Your task to perform on an android device: toggle improve location accuracy Image 0: 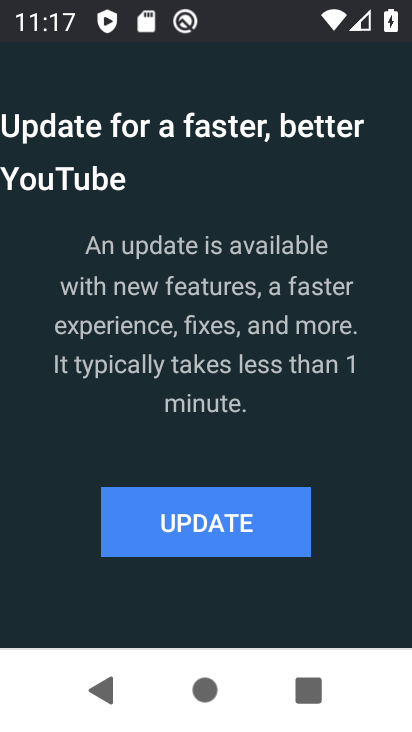
Step 0: press home button
Your task to perform on an android device: toggle improve location accuracy Image 1: 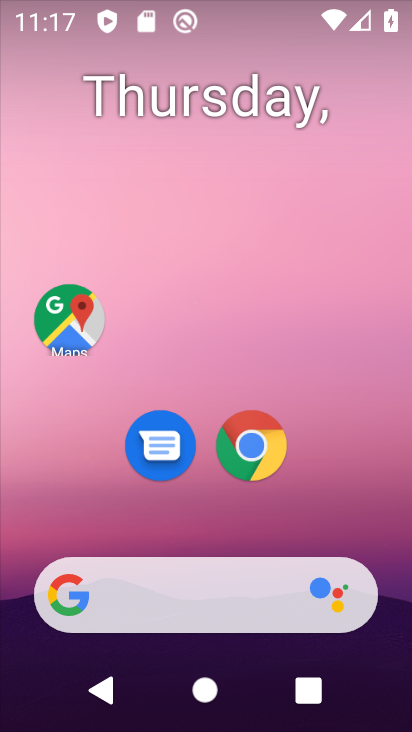
Step 1: drag from (222, 524) to (226, 69)
Your task to perform on an android device: toggle improve location accuracy Image 2: 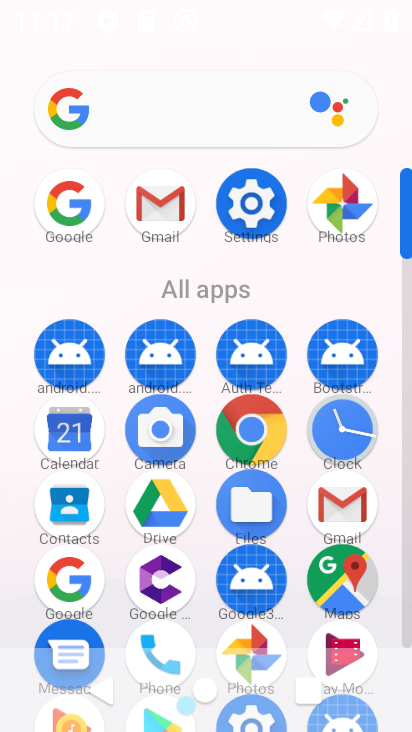
Step 2: click (263, 188)
Your task to perform on an android device: toggle improve location accuracy Image 3: 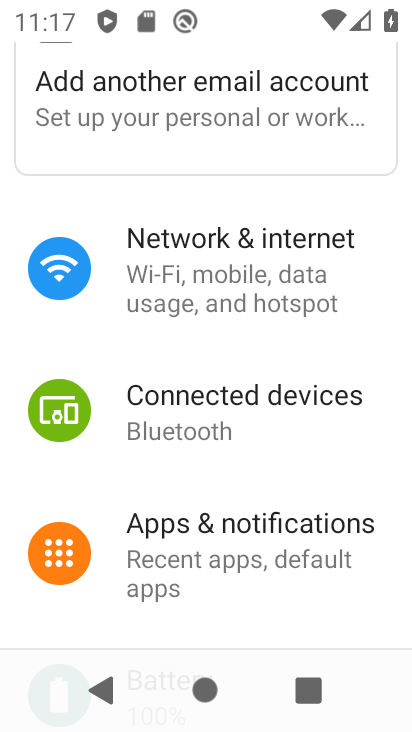
Step 3: drag from (238, 580) to (249, 268)
Your task to perform on an android device: toggle improve location accuracy Image 4: 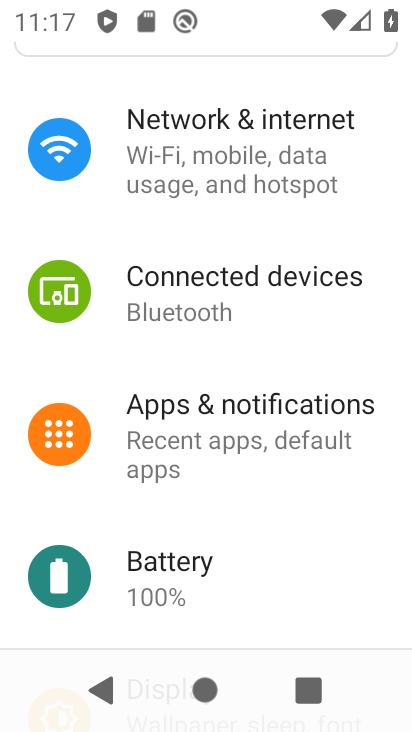
Step 4: drag from (248, 377) to (249, 334)
Your task to perform on an android device: toggle improve location accuracy Image 5: 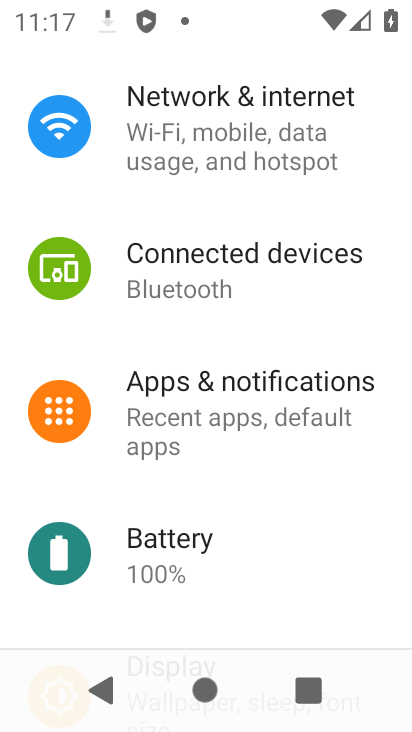
Step 5: drag from (254, 412) to (256, 327)
Your task to perform on an android device: toggle improve location accuracy Image 6: 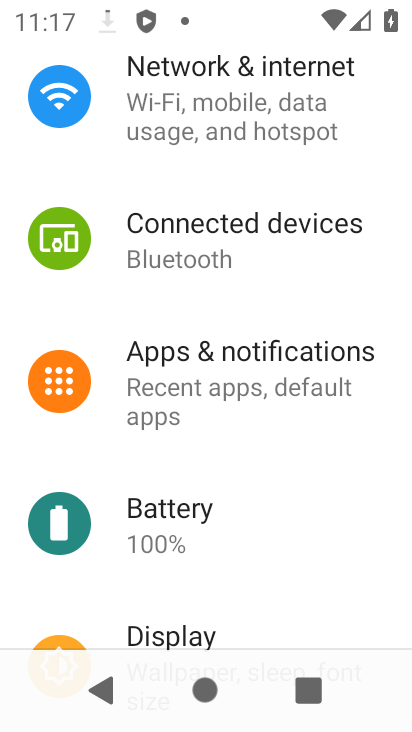
Step 6: drag from (263, 571) to (264, 299)
Your task to perform on an android device: toggle improve location accuracy Image 7: 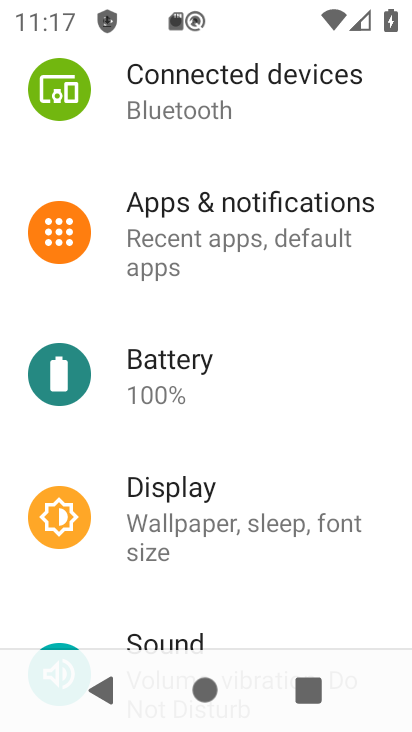
Step 7: drag from (262, 565) to (267, 318)
Your task to perform on an android device: toggle improve location accuracy Image 8: 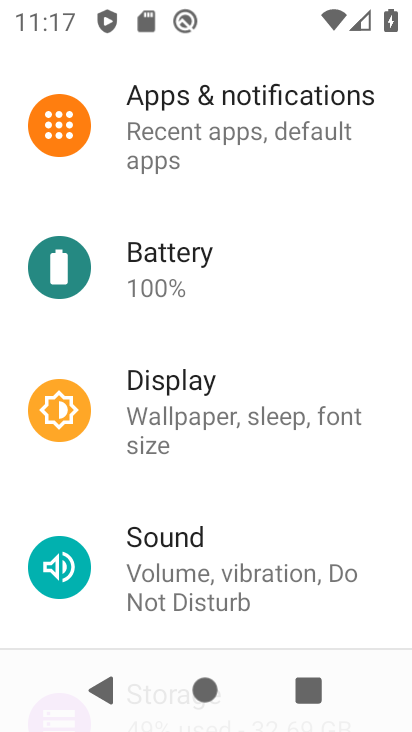
Step 8: drag from (250, 482) to (242, 195)
Your task to perform on an android device: toggle improve location accuracy Image 9: 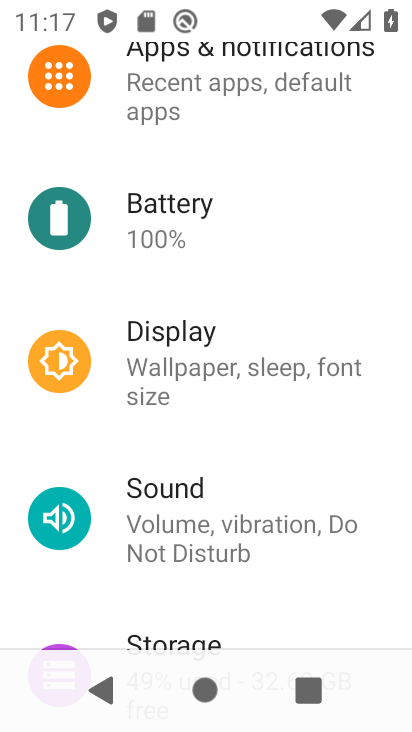
Step 9: drag from (228, 381) to (229, 290)
Your task to perform on an android device: toggle improve location accuracy Image 10: 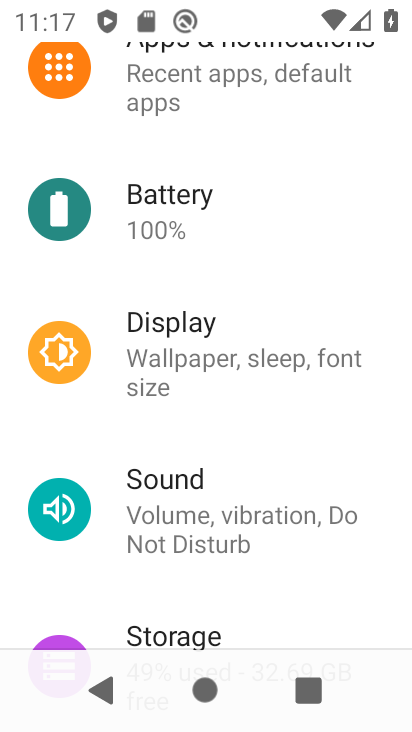
Step 10: drag from (241, 383) to (247, 280)
Your task to perform on an android device: toggle improve location accuracy Image 11: 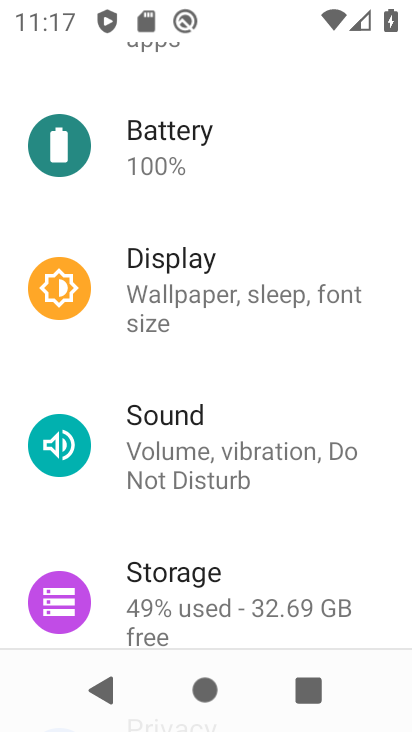
Step 11: drag from (246, 517) to (261, 221)
Your task to perform on an android device: toggle improve location accuracy Image 12: 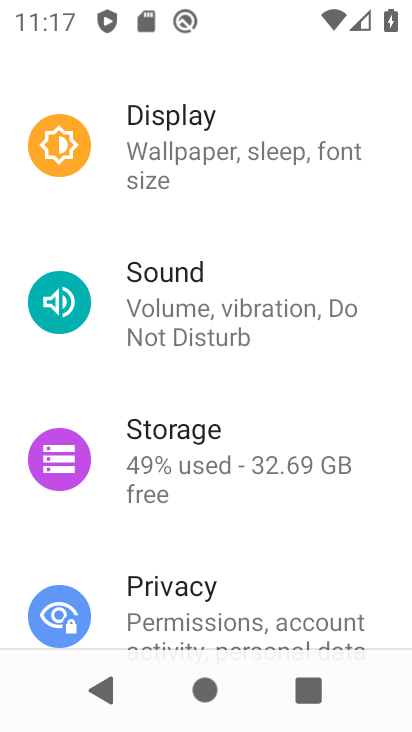
Step 12: drag from (250, 490) to (262, 195)
Your task to perform on an android device: toggle improve location accuracy Image 13: 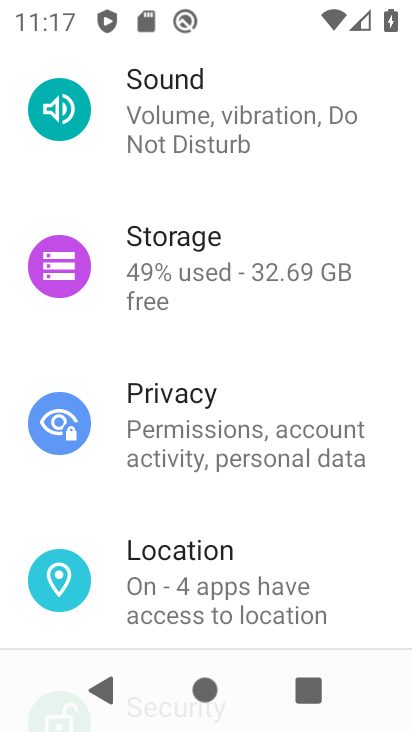
Step 13: click (228, 579)
Your task to perform on an android device: toggle improve location accuracy Image 14: 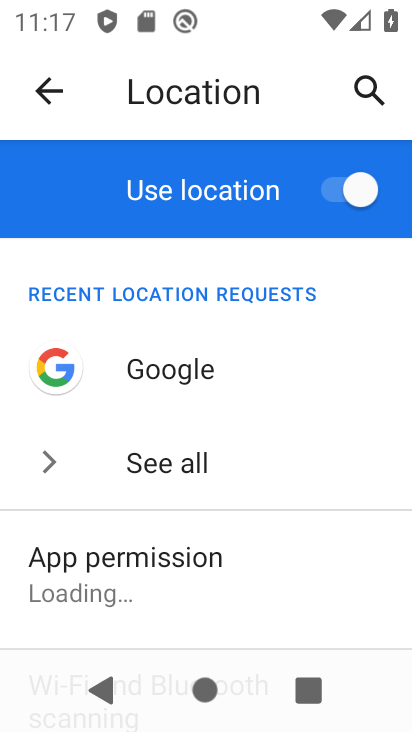
Step 14: drag from (233, 597) to (237, 266)
Your task to perform on an android device: toggle improve location accuracy Image 15: 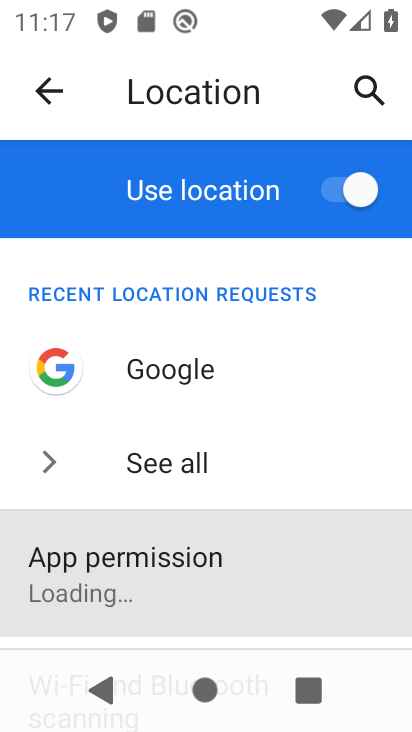
Step 15: drag from (249, 587) to (257, 388)
Your task to perform on an android device: toggle improve location accuracy Image 16: 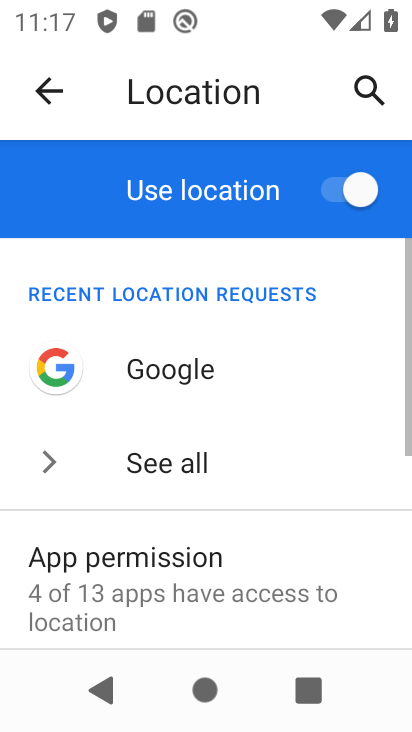
Step 16: drag from (237, 480) to (245, 231)
Your task to perform on an android device: toggle improve location accuracy Image 17: 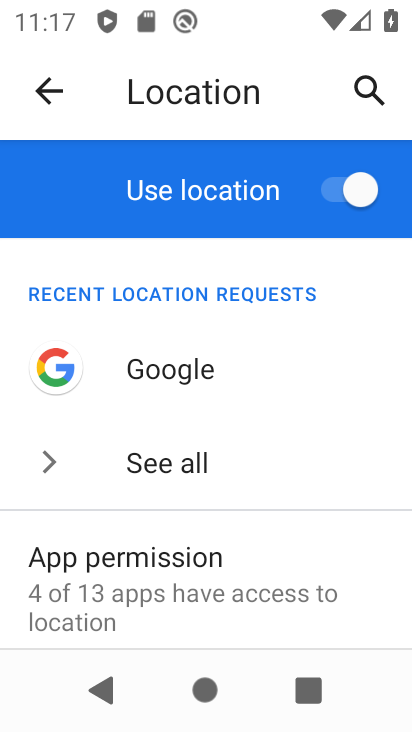
Step 17: drag from (211, 615) to (209, 81)
Your task to perform on an android device: toggle improve location accuracy Image 18: 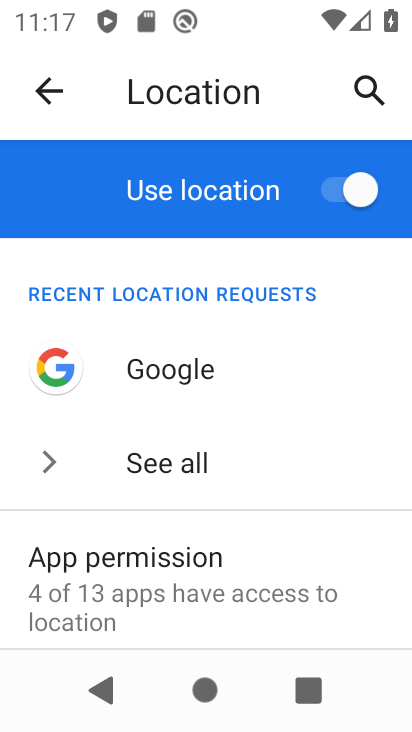
Step 18: drag from (199, 568) to (199, 95)
Your task to perform on an android device: toggle improve location accuracy Image 19: 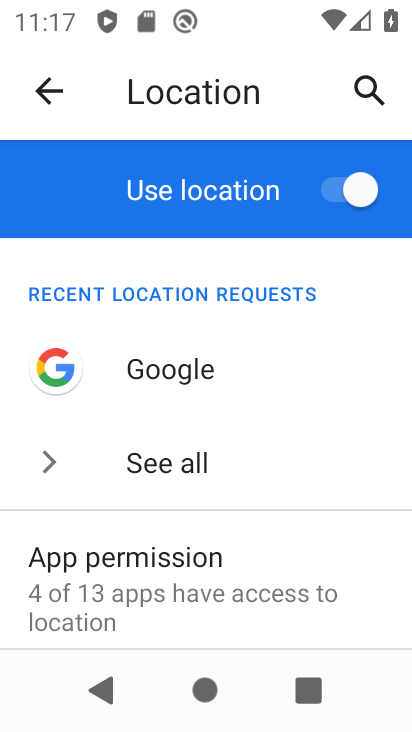
Step 19: drag from (160, 572) to (192, 130)
Your task to perform on an android device: toggle improve location accuracy Image 20: 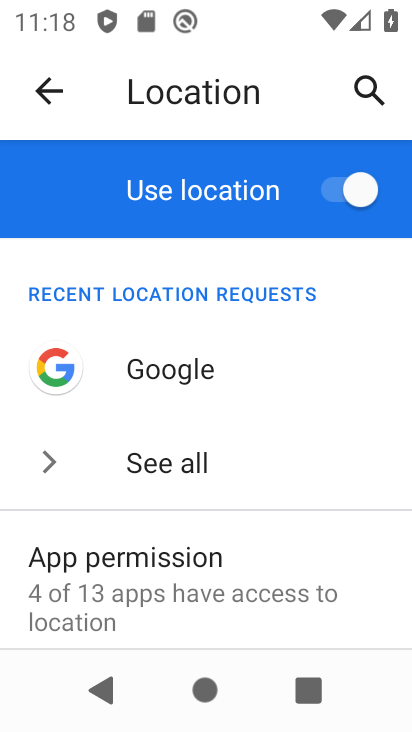
Step 20: drag from (224, 507) to (226, 139)
Your task to perform on an android device: toggle improve location accuracy Image 21: 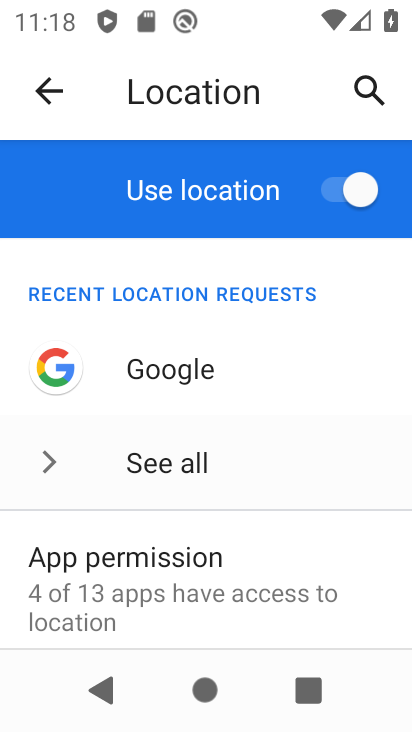
Step 21: drag from (248, 555) to (249, 272)
Your task to perform on an android device: toggle improve location accuracy Image 22: 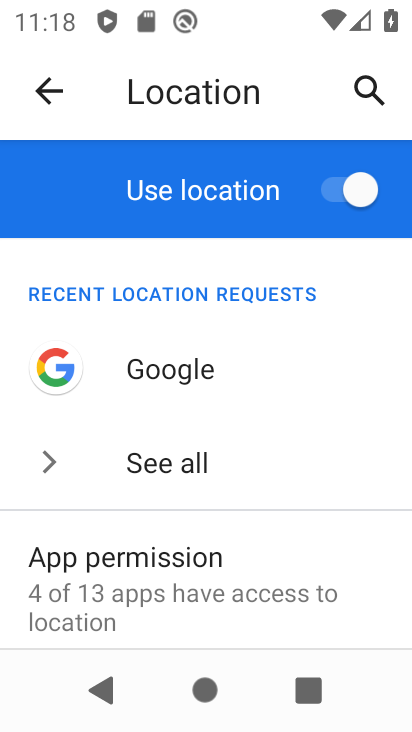
Step 22: drag from (237, 627) to (226, 318)
Your task to perform on an android device: toggle improve location accuracy Image 23: 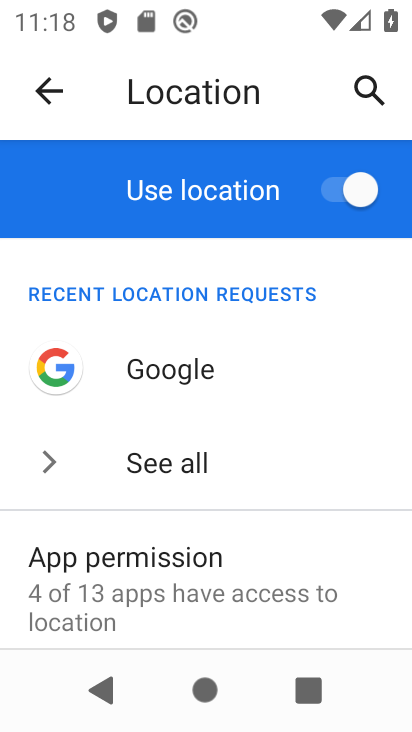
Step 23: drag from (256, 548) to (256, 235)
Your task to perform on an android device: toggle improve location accuracy Image 24: 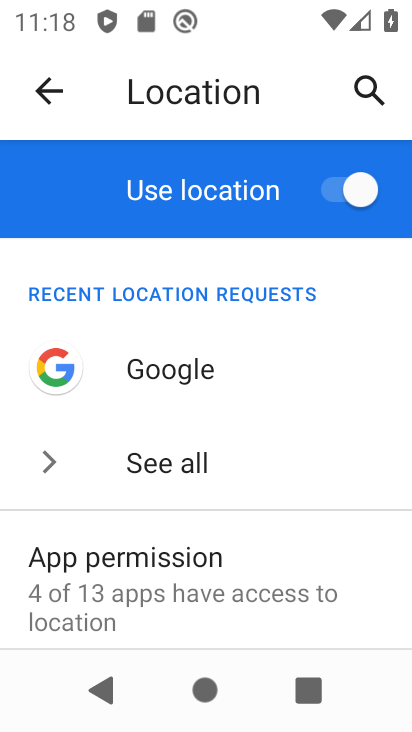
Step 24: drag from (265, 541) to (265, 303)
Your task to perform on an android device: toggle improve location accuracy Image 25: 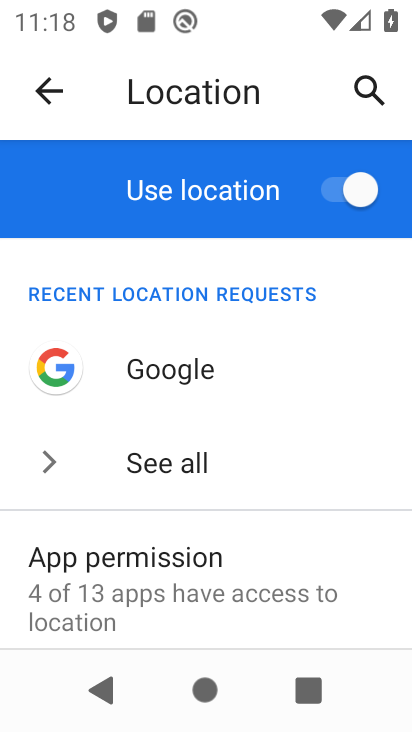
Step 25: drag from (255, 572) to (258, 337)
Your task to perform on an android device: toggle improve location accuracy Image 26: 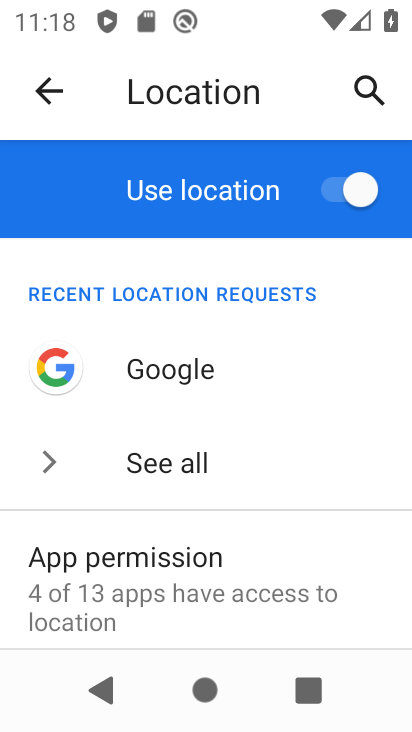
Step 26: drag from (172, 506) to (174, 245)
Your task to perform on an android device: toggle improve location accuracy Image 27: 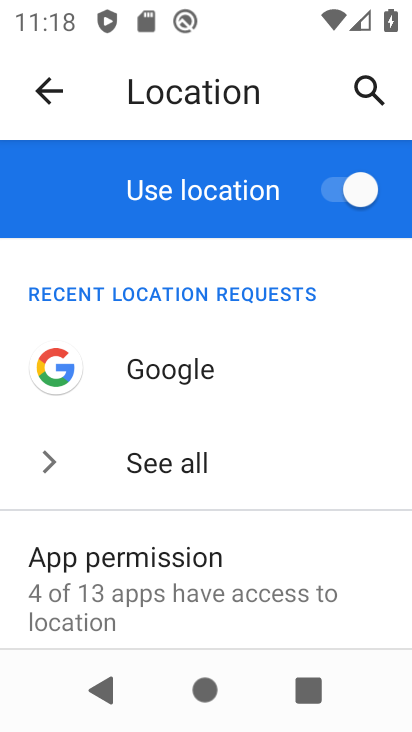
Step 27: drag from (215, 545) to (219, 258)
Your task to perform on an android device: toggle improve location accuracy Image 28: 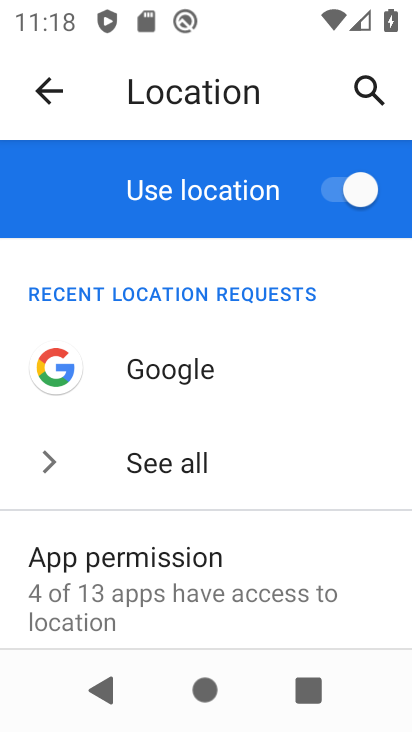
Step 28: drag from (212, 597) to (220, 343)
Your task to perform on an android device: toggle improve location accuracy Image 29: 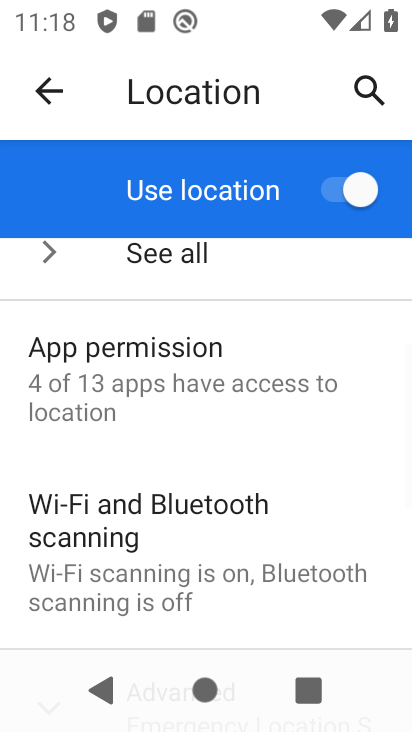
Step 29: drag from (226, 577) to (231, 320)
Your task to perform on an android device: toggle improve location accuracy Image 30: 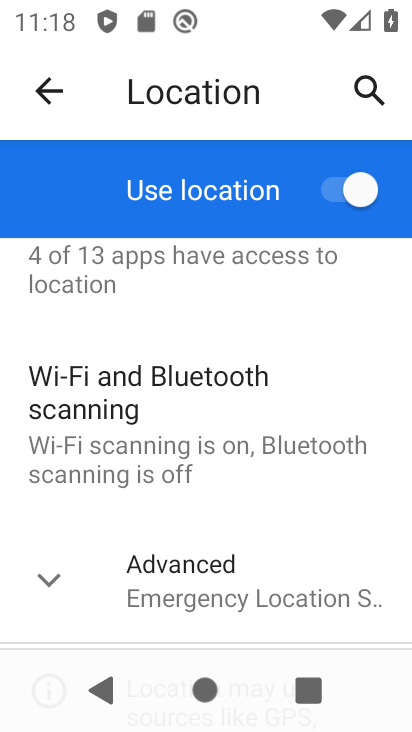
Step 30: click (255, 584)
Your task to perform on an android device: toggle improve location accuracy Image 31: 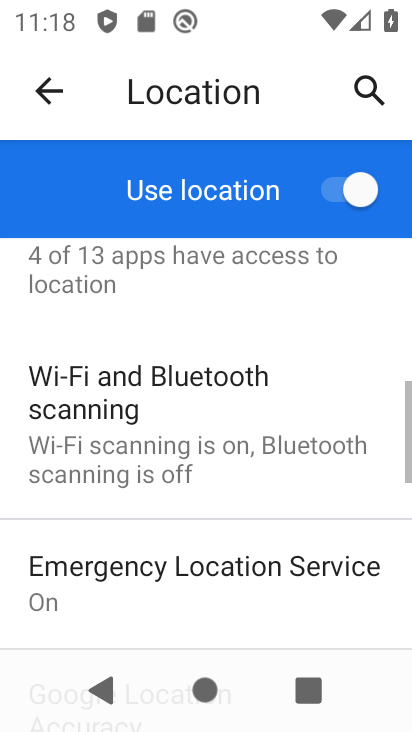
Step 31: drag from (267, 411) to (274, 312)
Your task to perform on an android device: toggle improve location accuracy Image 32: 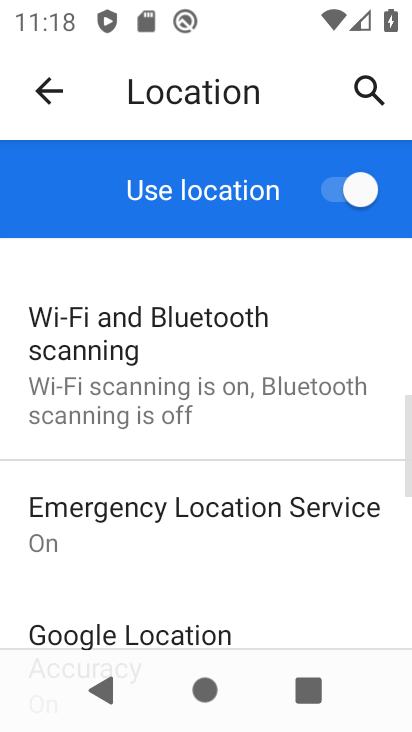
Step 32: drag from (274, 543) to (289, 338)
Your task to perform on an android device: toggle improve location accuracy Image 33: 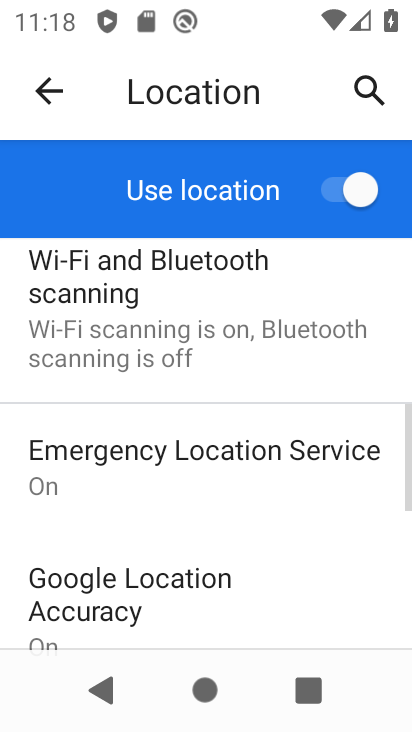
Step 33: click (204, 587)
Your task to perform on an android device: toggle improve location accuracy Image 34: 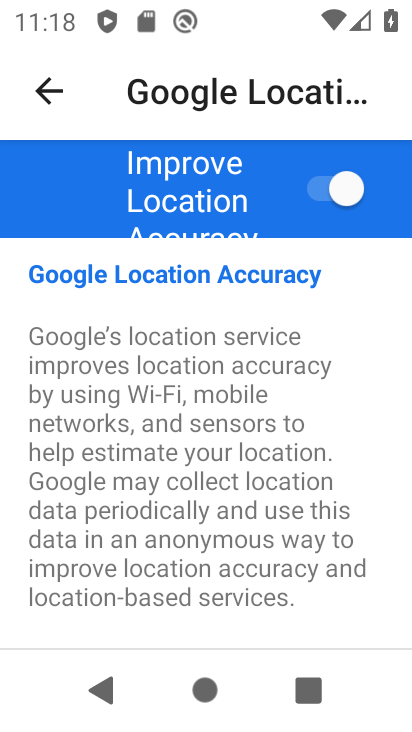
Step 34: click (309, 189)
Your task to perform on an android device: toggle improve location accuracy Image 35: 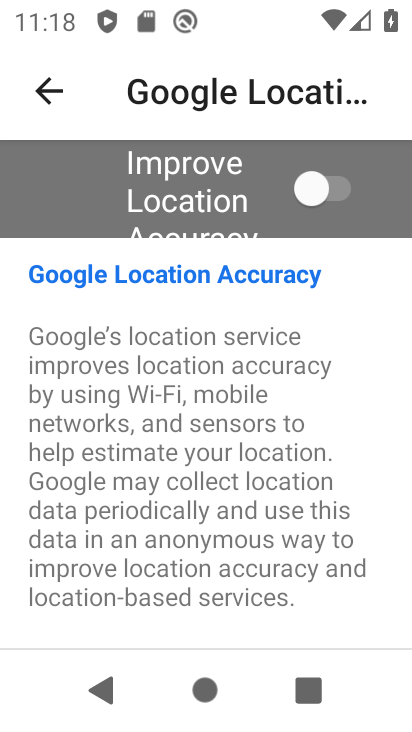
Step 35: task complete